Your task to perform on an android device: allow notifications from all sites in the chrome app Image 0: 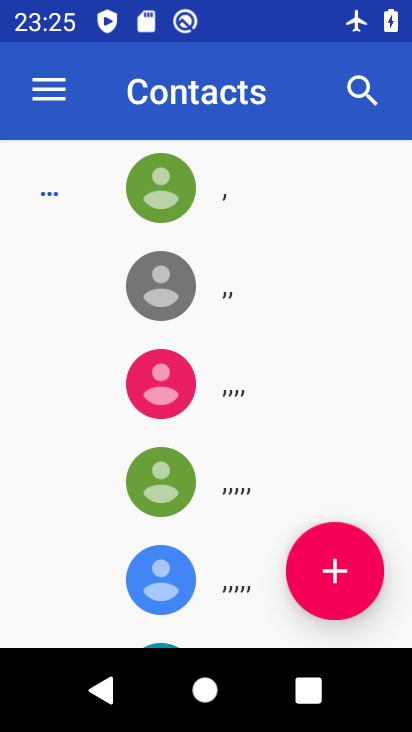
Step 0: press home button
Your task to perform on an android device: allow notifications from all sites in the chrome app Image 1: 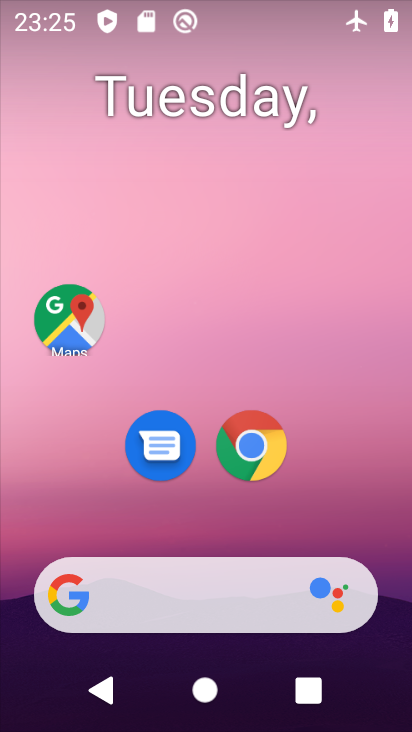
Step 1: click (251, 446)
Your task to perform on an android device: allow notifications from all sites in the chrome app Image 2: 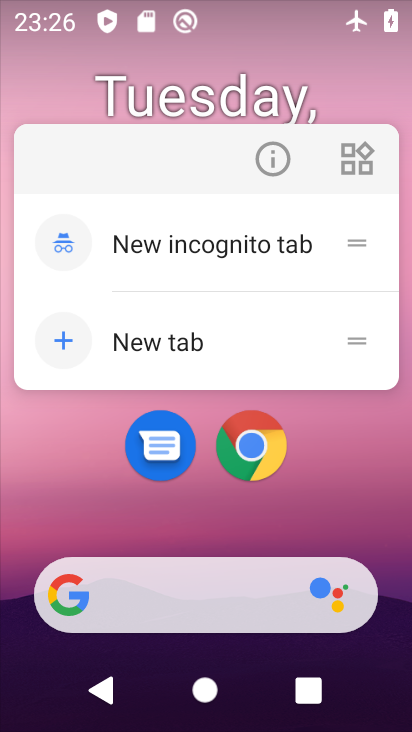
Step 2: click (250, 442)
Your task to perform on an android device: allow notifications from all sites in the chrome app Image 3: 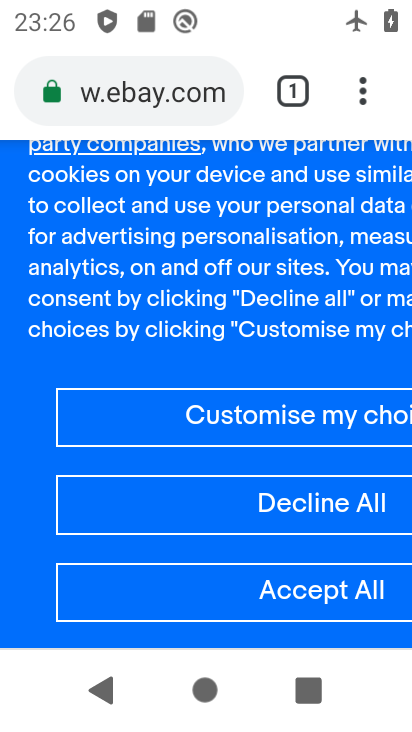
Step 3: click (369, 94)
Your task to perform on an android device: allow notifications from all sites in the chrome app Image 4: 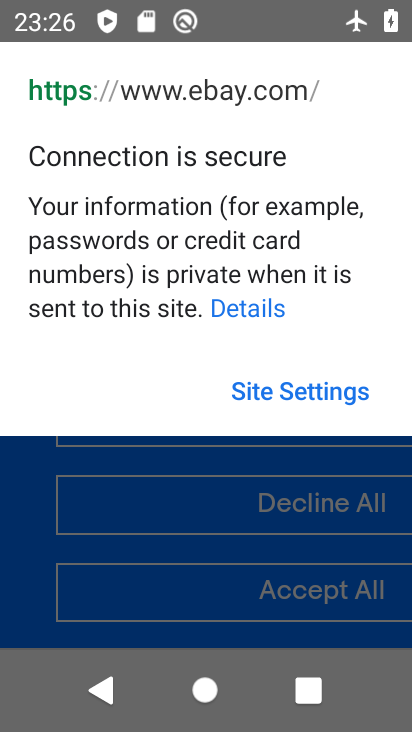
Step 4: click (101, 528)
Your task to perform on an android device: allow notifications from all sites in the chrome app Image 5: 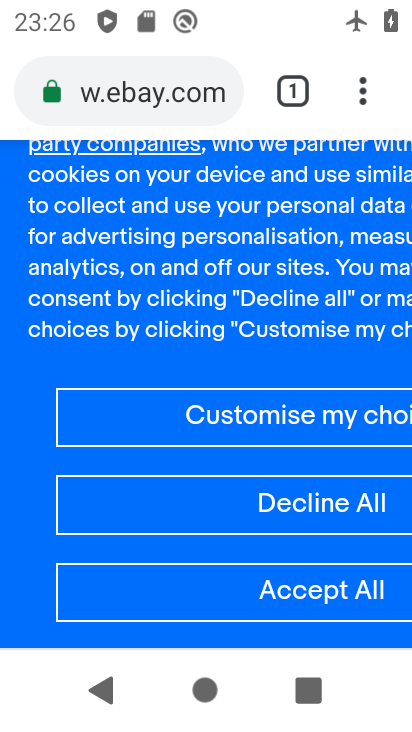
Step 5: click (364, 92)
Your task to perform on an android device: allow notifications from all sites in the chrome app Image 6: 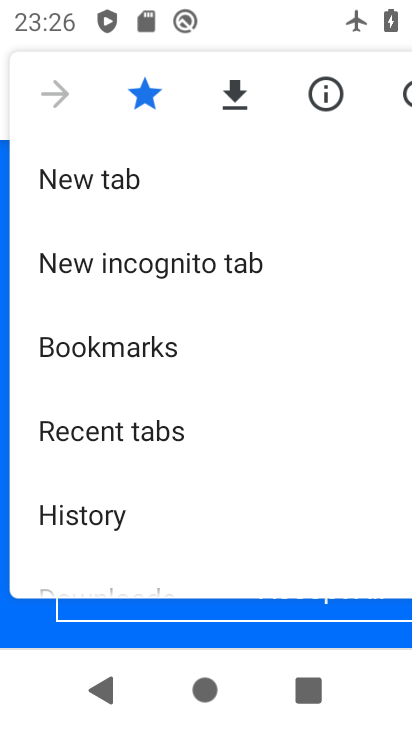
Step 6: drag from (189, 499) to (205, 261)
Your task to perform on an android device: allow notifications from all sites in the chrome app Image 7: 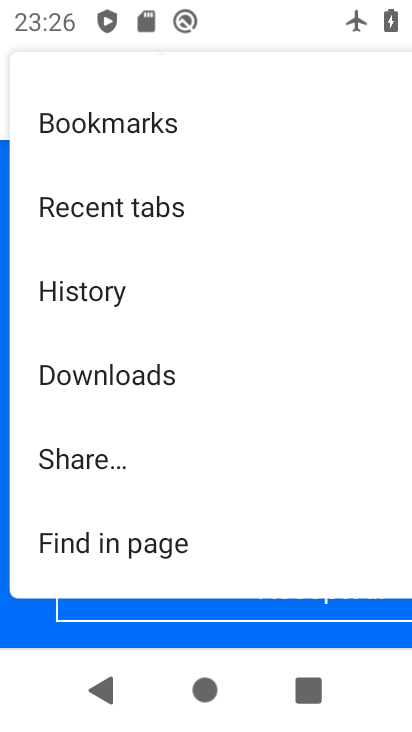
Step 7: drag from (235, 523) to (275, 248)
Your task to perform on an android device: allow notifications from all sites in the chrome app Image 8: 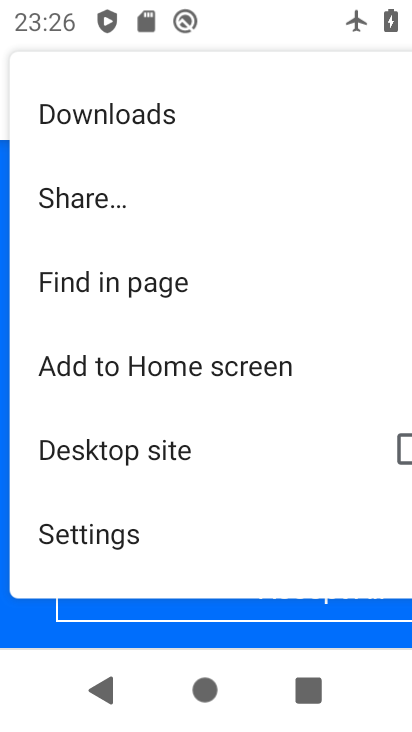
Step 8: click (170, 536)
Your task to perform on an android device: allow notifications from all sites in the chrome app Image 9: 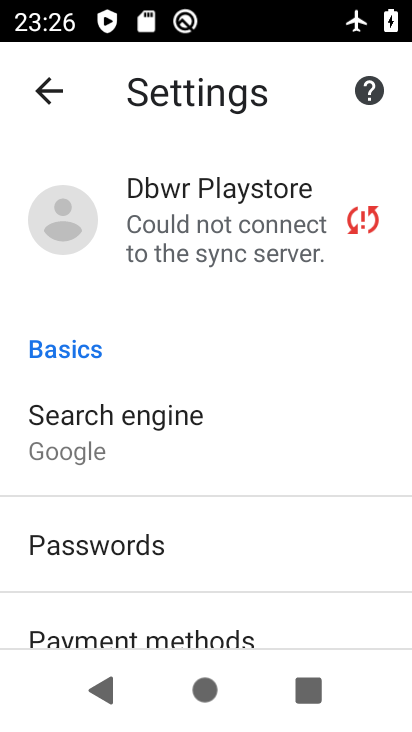
Step 9: drag from (244, 611) to (280, 360)
Your task to perform on an android device: allow notifications from all sites in the chrome app Image 10: 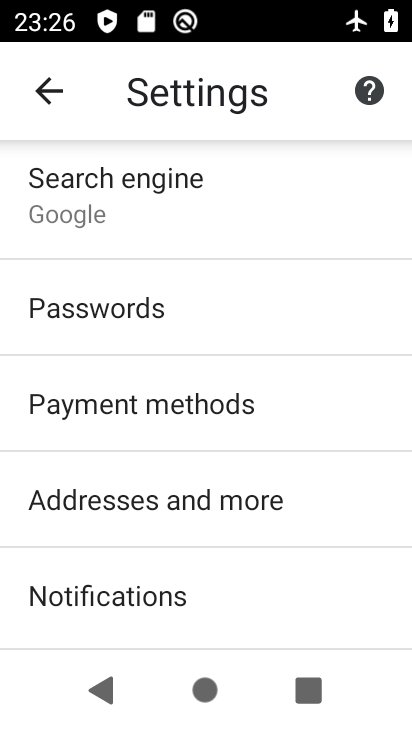
Step 10: click (289, 607)
Your task to perform on an android device: allow notifications from all sites in the chrome app Image 11: 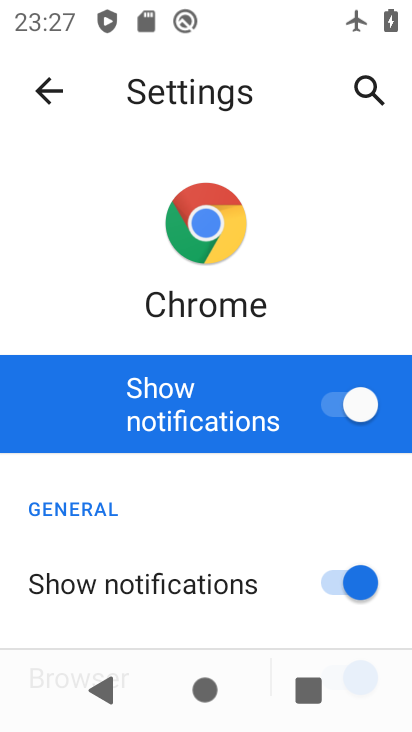
Step 11: task complete